Your task to perform on an android device: Open Wikipedia Image 0: 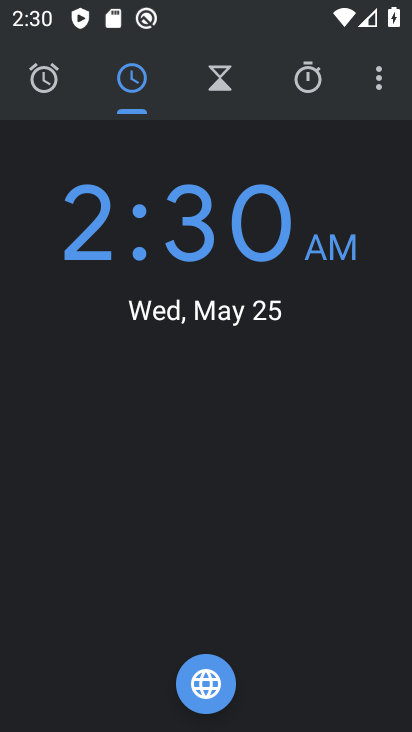
Step 0: press home button
Your task to perform on an android device: Open Wikipedia Image 1: 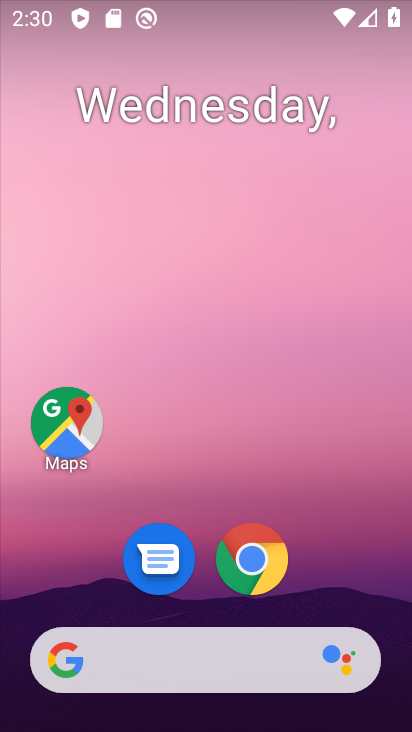
Step 1: click (240, 568)
Your task to perform on an android device: Open Wikipedia Image 2: 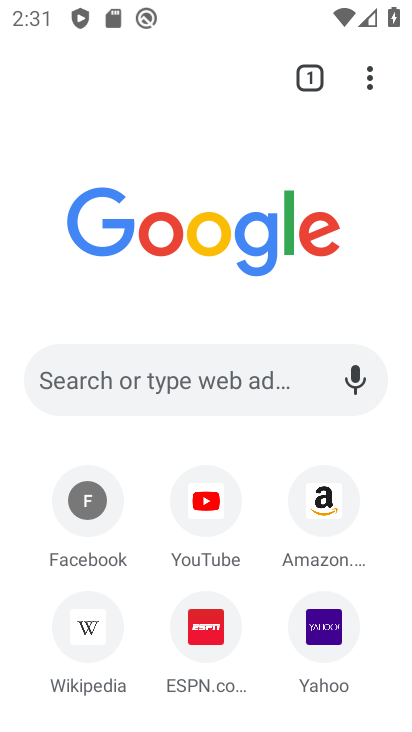
Step 2: click (91, 633)
Your task to perform on an android device: Open Wikipedia Image 3: 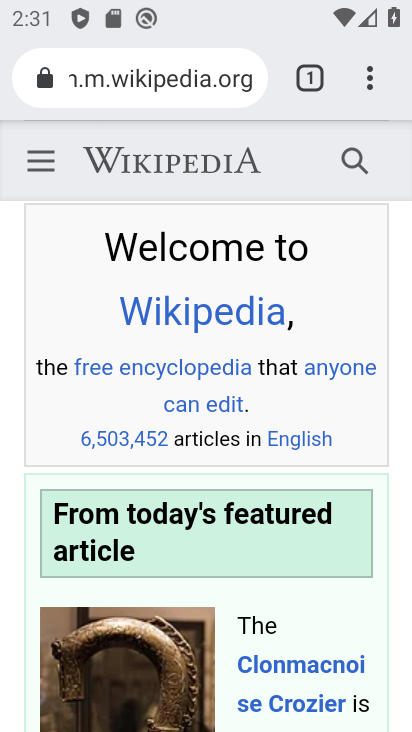
Step 3: task complete